Your task to perform on an android device: toggle notification dots Image 0: 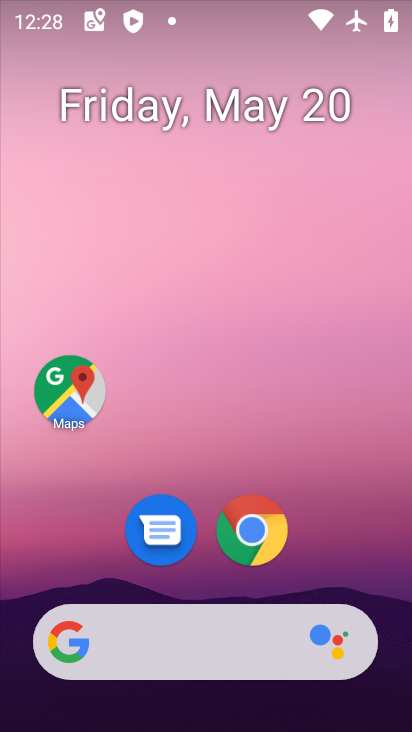
Step 0: drag from (220, 632) to (210, 214)
Your task to perform on an android device: toggle notification dots Image 1: 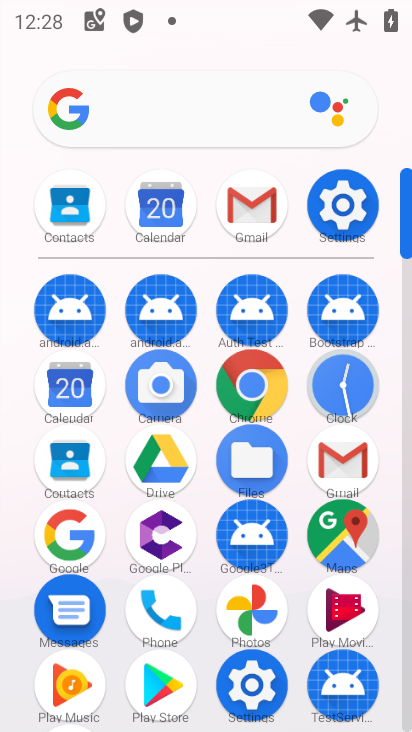
Step 1: click (348, 207)
Your task to perform on an android device: toggle notification dots Image 2: 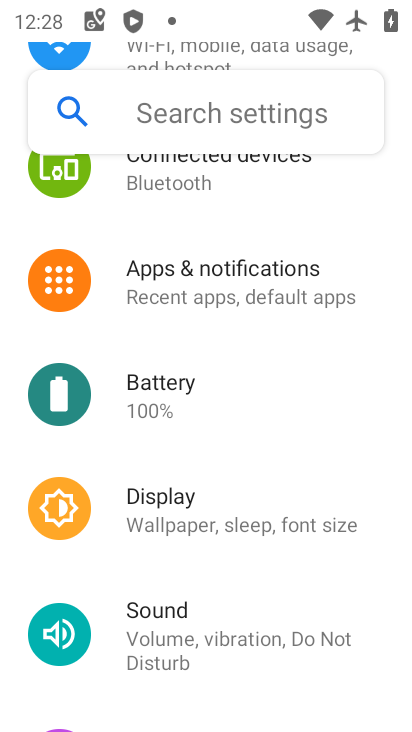
Step 2: drag from (230, 616) to (190, 171)
Your task to perform on an android device: toggle notification dots Image 3: 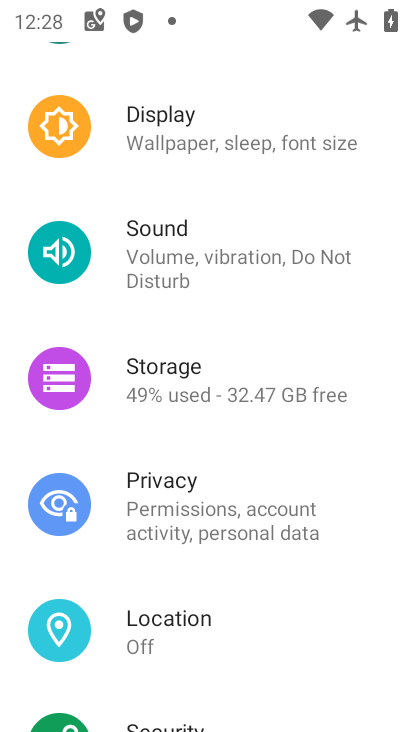
Step 3: drag from (209, 211) to (189, 731)
Your task to perform on an android device: toggle notification dots Image 4: 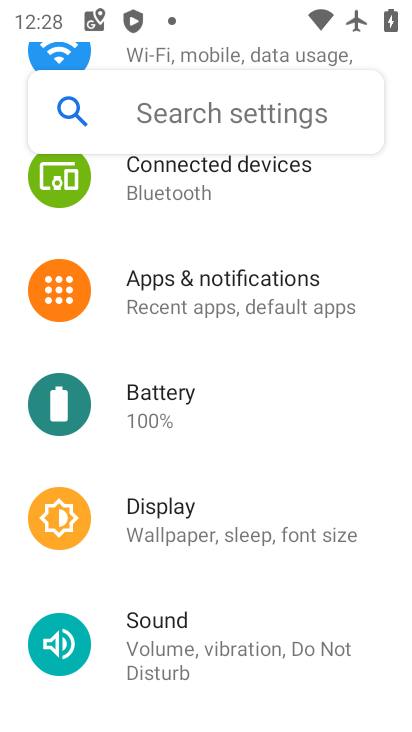
Step 4: click (287, 314)
Your task to perform on an android device: toggle notification dots Image 5: 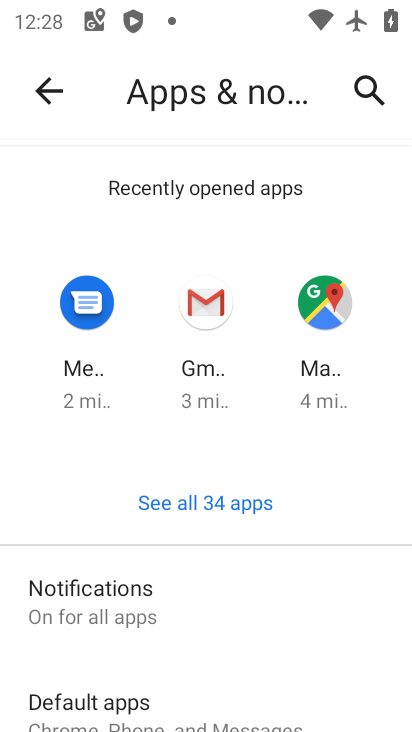
Step 5: drag from (268, 645) to (243, 91)
Your task to perform on an android device: toggle notification dots Image 6: 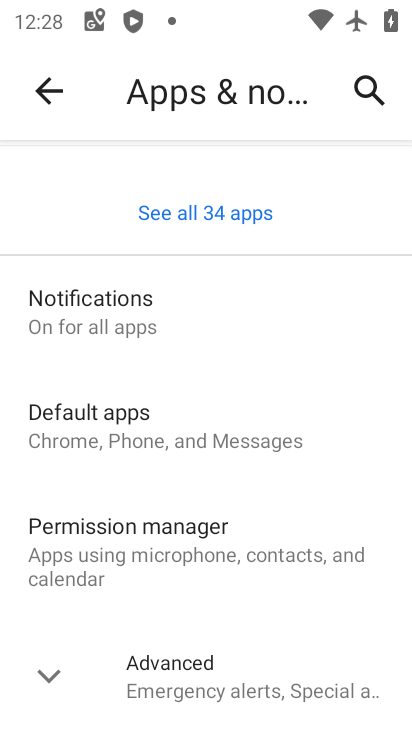
Step 6: click (167, 294)
Your task to perform on an android device: toggle notification dots Image 7: 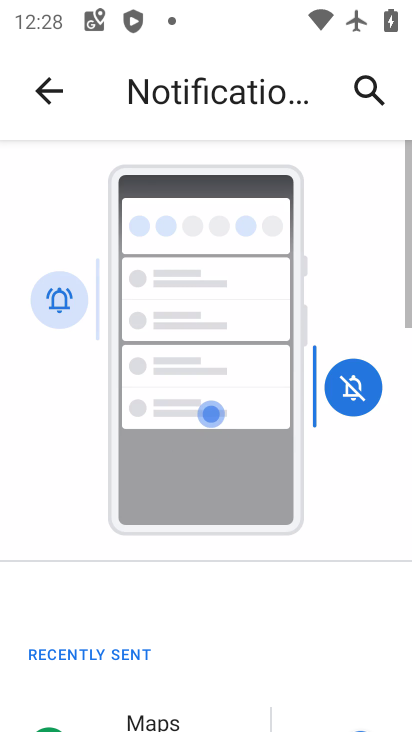
Step 7: drag from (181, 554) to (263, 153)
Your task to perform on an android device: toggle notification dots Image 8: 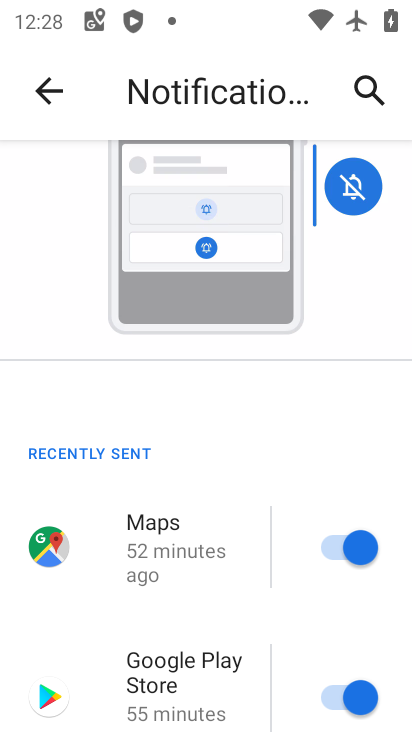
Step 8: drag from (238, 603) to (293, 124)
Your task to perform on an android device: toggle notification dots Image 9: 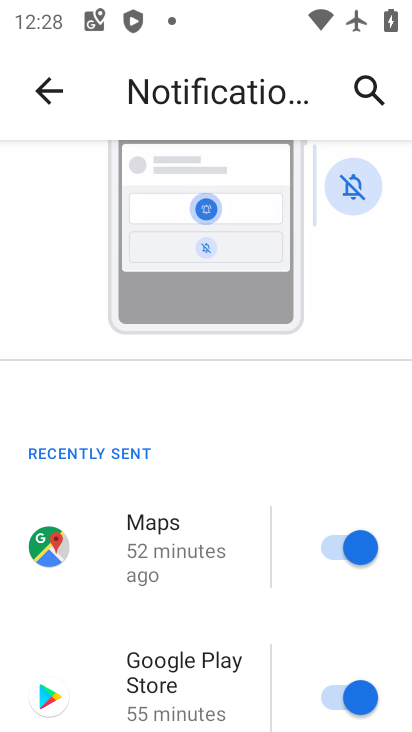
Step 9: drag from (179, 707) to (159, 22)
Your task to perform on an android device: toggle notification dots Image 10: 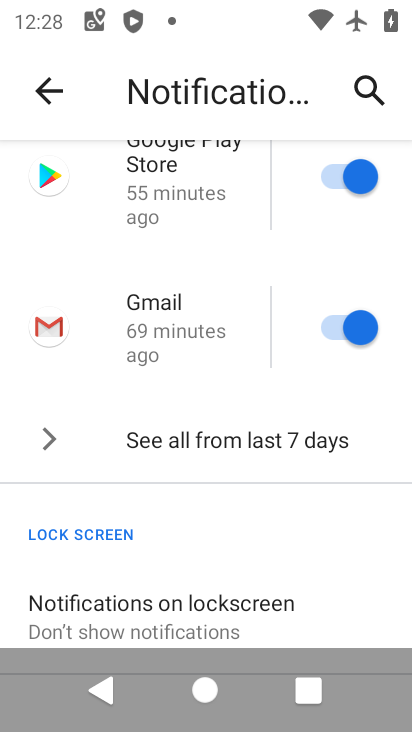
Step 10: drag from (224, 599) to (215, 102)
Your task to perform on an android device: toggle notification dots Image 11: 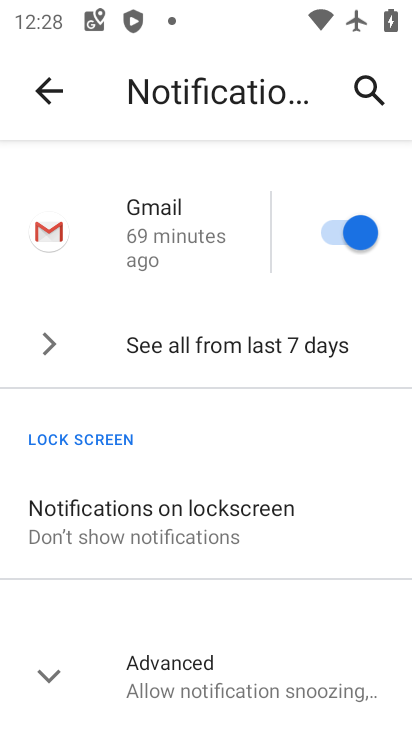
Step 11: click (244, 675)
Your task to perform on an android device: toggle notification dots Image 12: 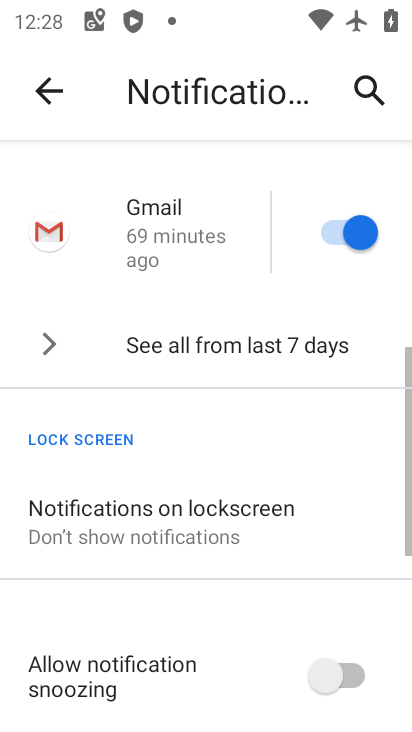
Step 12: drag from (170, 256) to (186, 116)
Your task to perform on an android device: toggle notification dots Image 13: 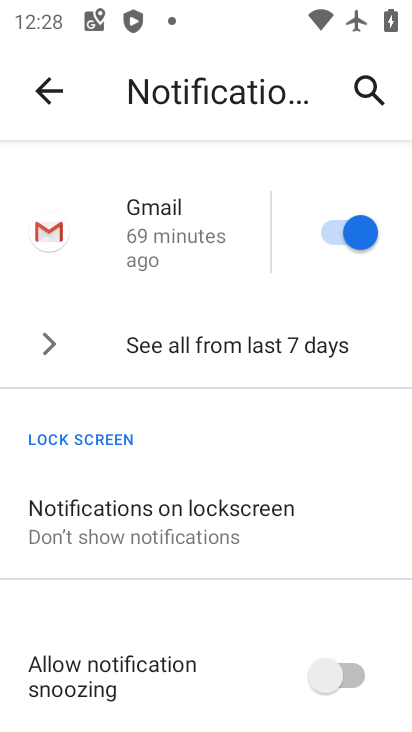
Step 13: drag from (225, 651) to (217, 112)
Your task to perform on an android device: toggle notification dots Image 14: 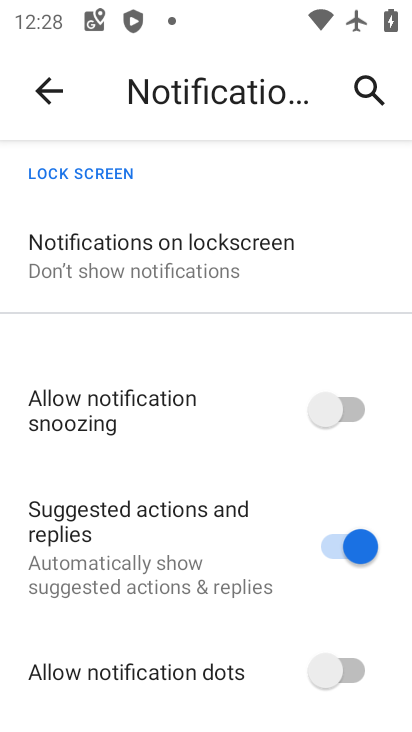
Step 14: click (340, 672)
Your task to perform on an android device: toggle notification dots Image 15: 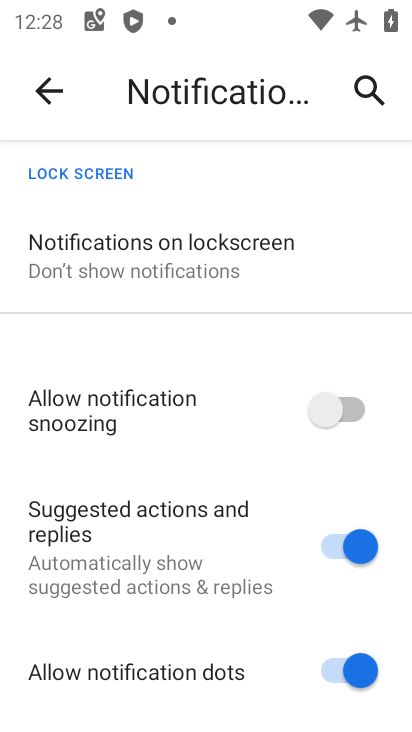
Step 15: task complete